Your task to perform on an android device: turn off improve location accuracy Image 0: 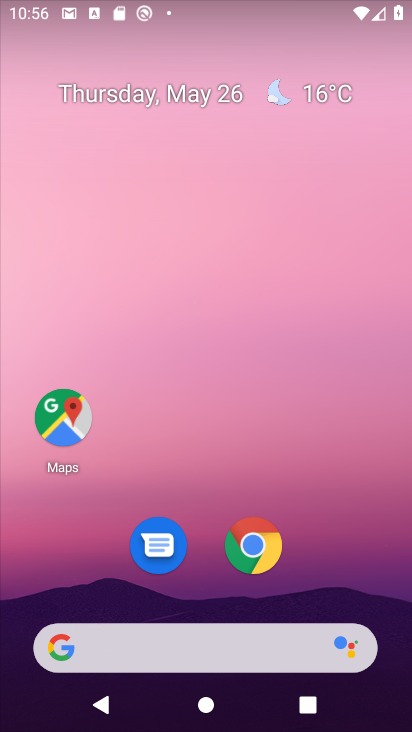
Step 0: press home button
Your task to perform on an android device: turn off improve location accuracy Image 1: 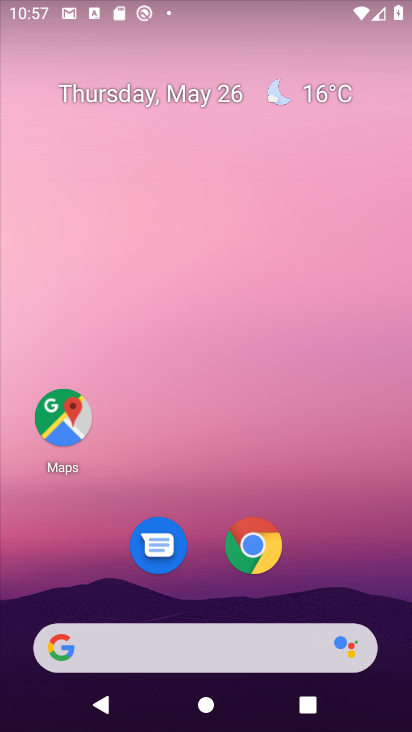
Step 1: drag from (290, 607) to (193, 137)
Your task to perform on an android device: turn off improve location accuracy Image 2: 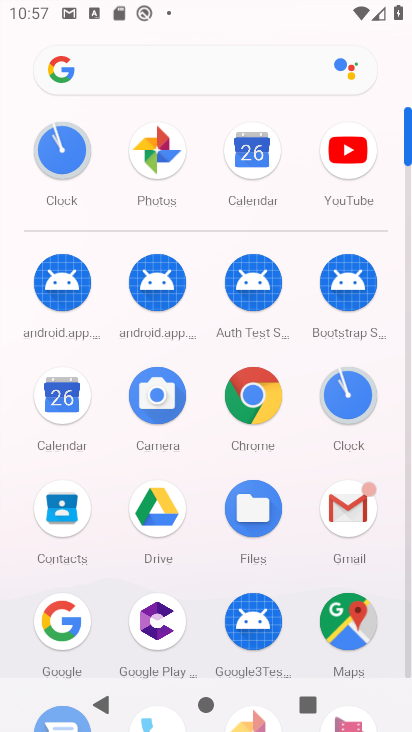
Step 2: drag from (386, 581) to (353, 133)
Your task to perform on an android device: turn off improve location accuracy Image 3: 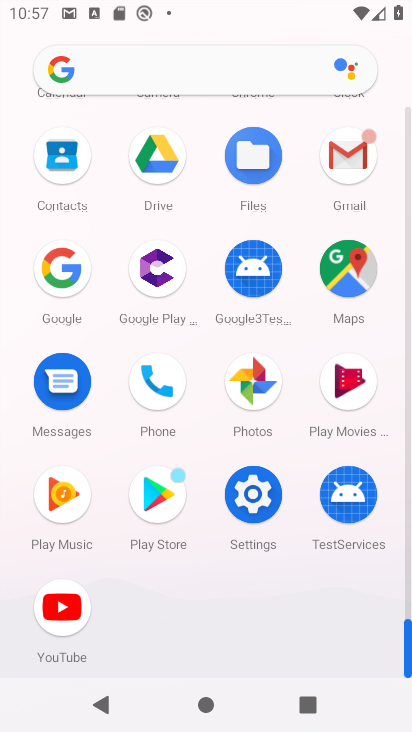
Step 3: click (262, 504)
Your task to perform on an android device: turn off improve location accuracy Image 4: 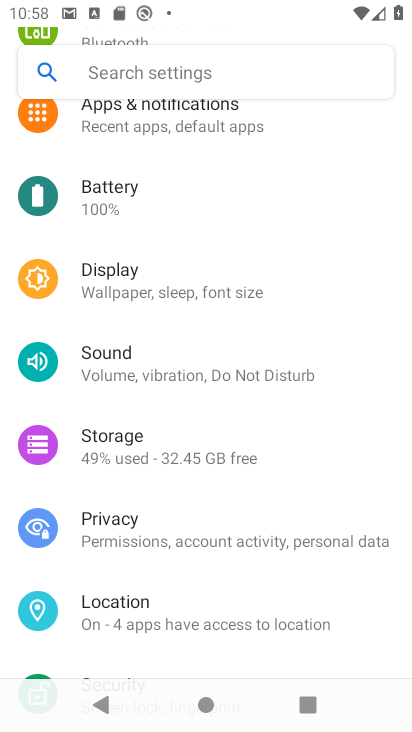
Step 4: click (102, 602)
Your task to perform on an android device: turn off improve location accuracy Image 5: 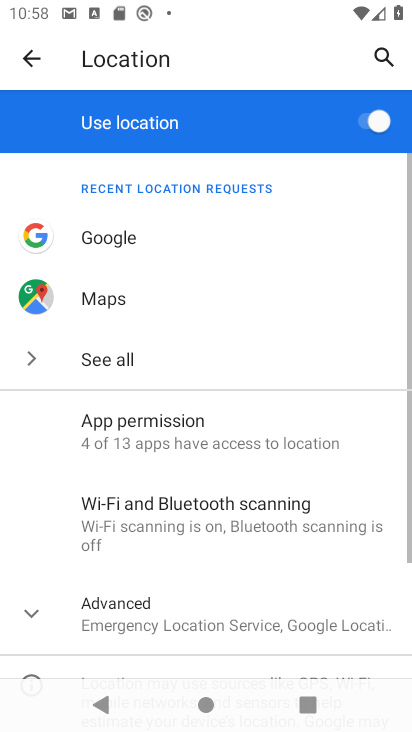
Step 5: drag from (365, 581) to (336, 206)
Your task to perform on an android device: turn off improve location accuracy Image 6: 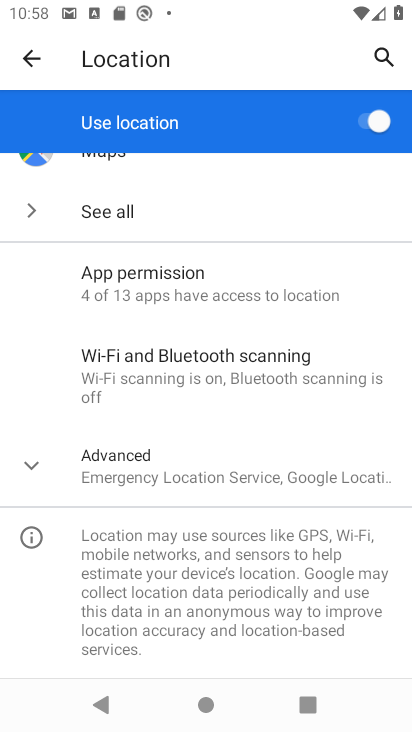
Step 6: click (106, 463)
Your task to perform on an android device: turn off improve location accuracy Image 7: 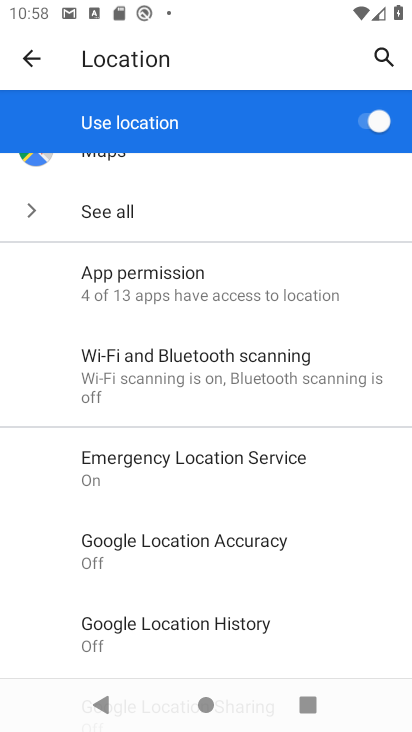
Step 7: click (197, 548)
Your task to perform on an android device: turn off improve location accuracy Image 8: 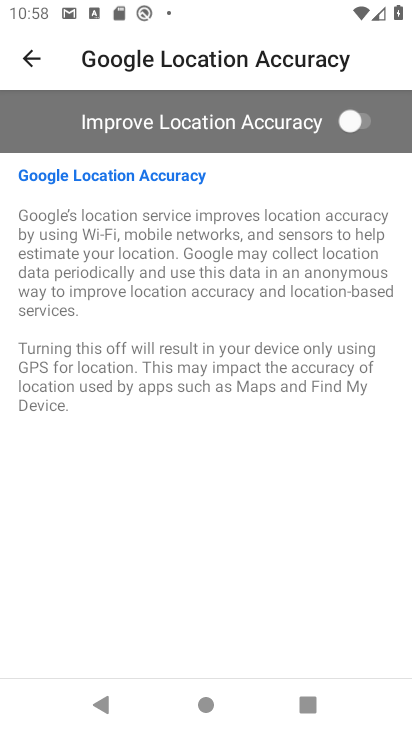
Step 8: task complete